Your task to perform on an android device: show emergency info Image 0: 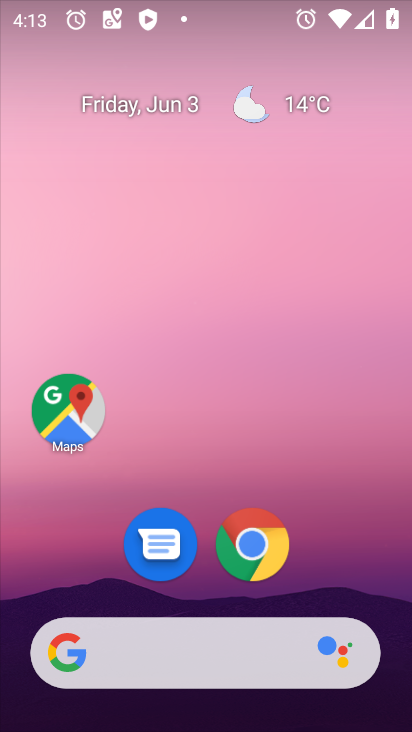
Step 0: drag from (395, 643) to (271, 57)
Your task to perform on an android device: show emergency info Image 1: 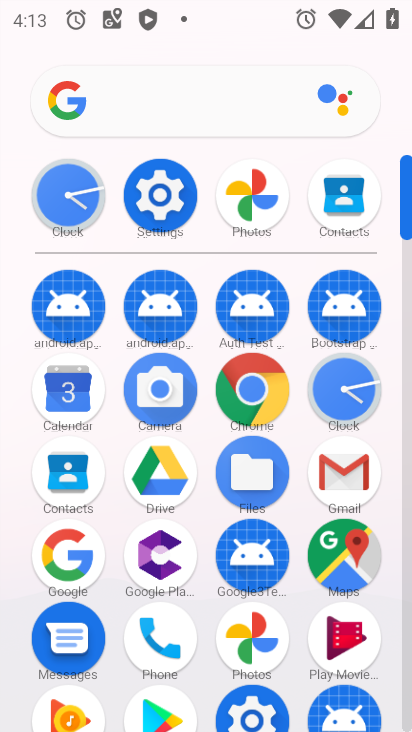
Step 1: click (404, 631)
Your task to perform on an android device: show emergency info Image 2: 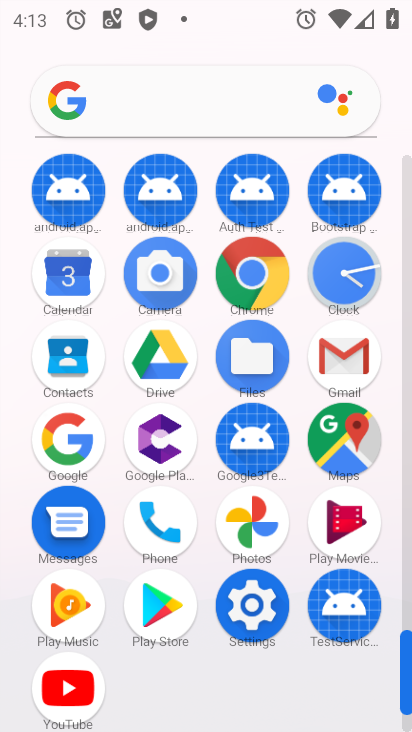
Step 2: click (254, 604)
Your task to perform on an android device: show emergency info Image 3: 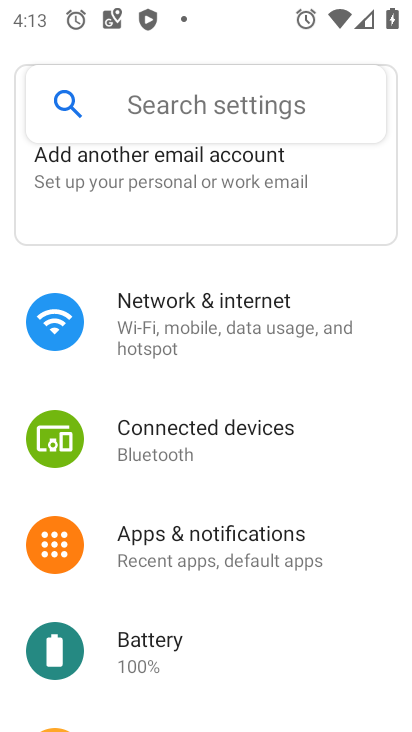
Step 3: drag from (341, 631) to (307, 76)
Your task to perform on an android device: show emergency info Image 4: 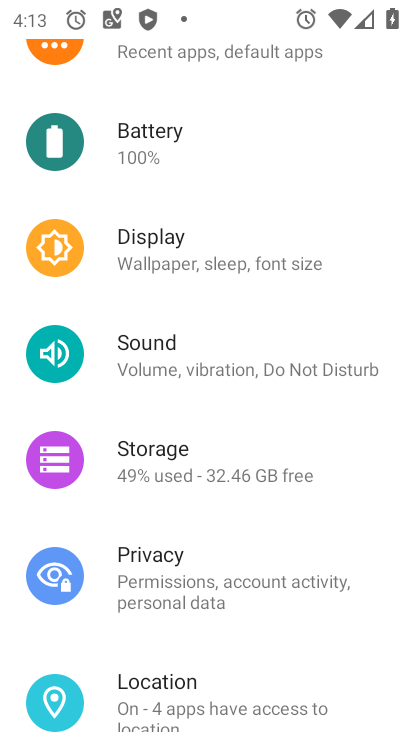
Step 4: drag from (352, 612) to (326, 164)
Your task to perform on an android device: show emergency info Image 5: 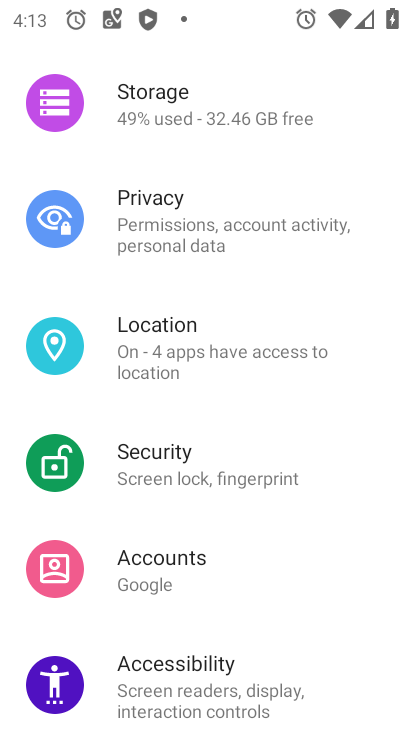
Step 5: drag from (320, 624) to (297, 218)
Your task to perform on an android device: show emergency info Image 6: 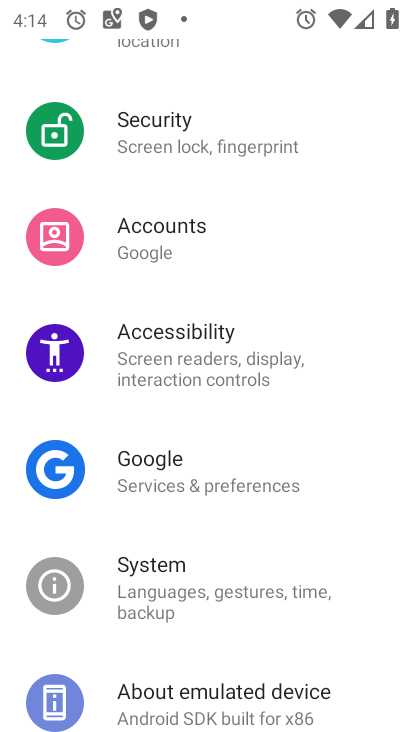
Step 6: drag from (251, 694) to (246, 212)
Your task to perform on an android device: show emergency info Image 7: 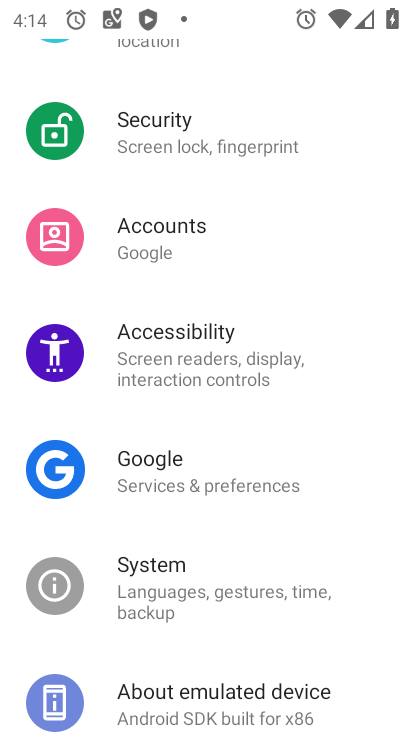
Step 7: click (198, 701)
Your task to perform on an android device: show emergency info Image 8: 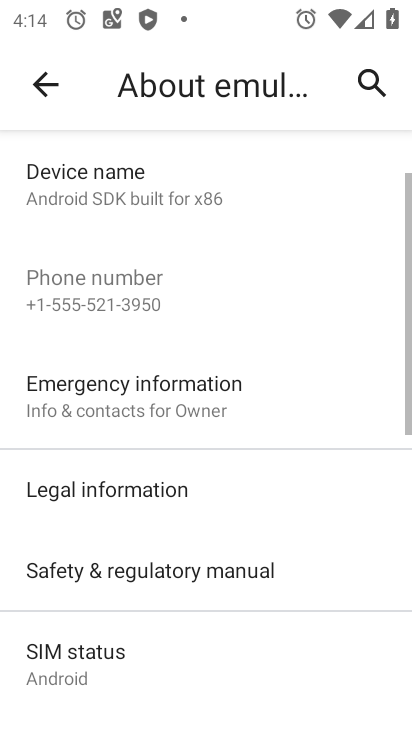
Step 8: click (108, 418)
Your task to perform on an android device: show emergency info Image 9: 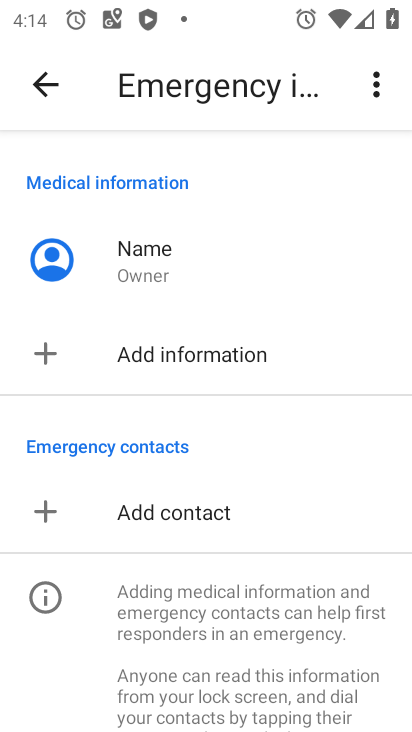
Step 9: task complete